Your task to perform on an android device: add a contact Image 0: 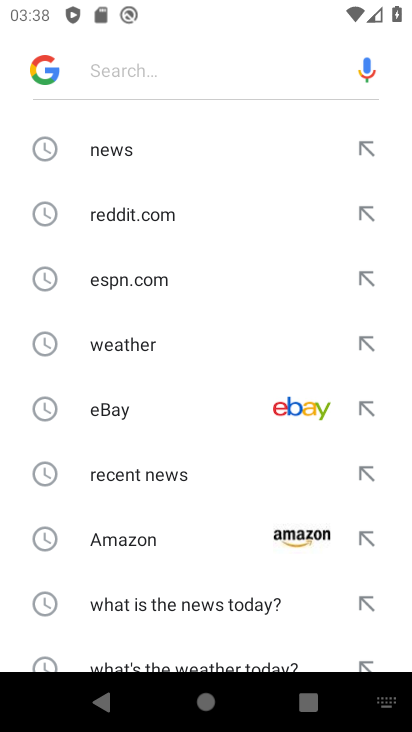
Step 0: press back button
Your task to perform on an android device: add a contact Image 1: 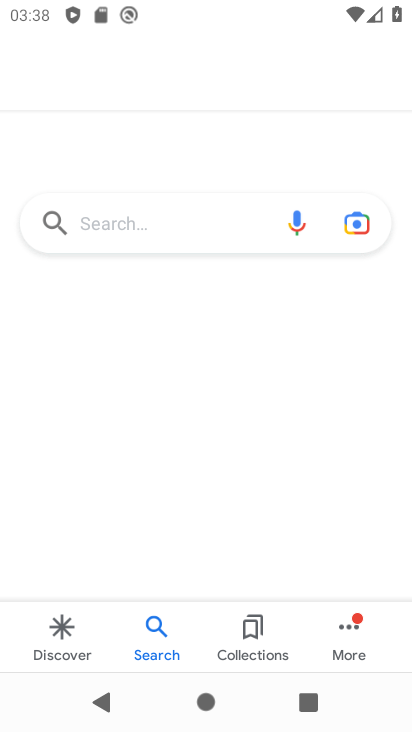
Step 1: press back button
Your task to perform on an android device: add a contact Image 2: 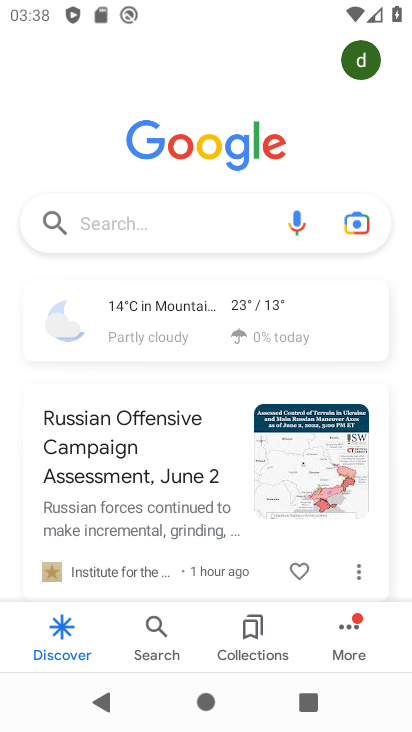
Step 2: press back button
Your task to perform on an android device: add a contact Image 3: 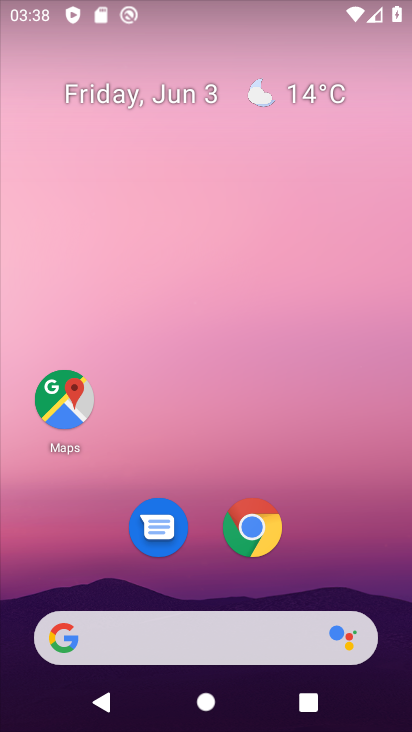
Step 3: drag from (337, 567) to (207, 9)
Your task to perform on an android device: add a contact Image 4: 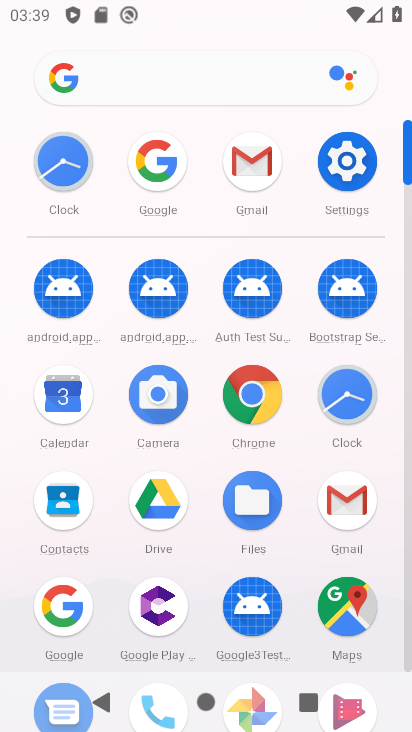
Step 4: click (62, 500)
Your task to perform on an android device: add a contact Image 5: 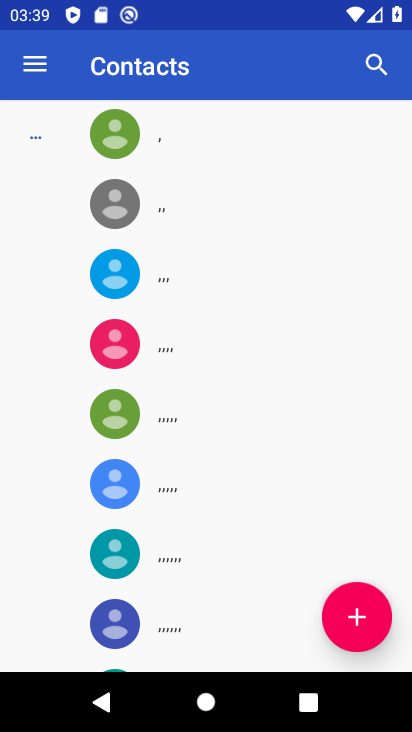
Step 5: click (357, 616)
Your task to perform on an android device: add a contact Image 6: 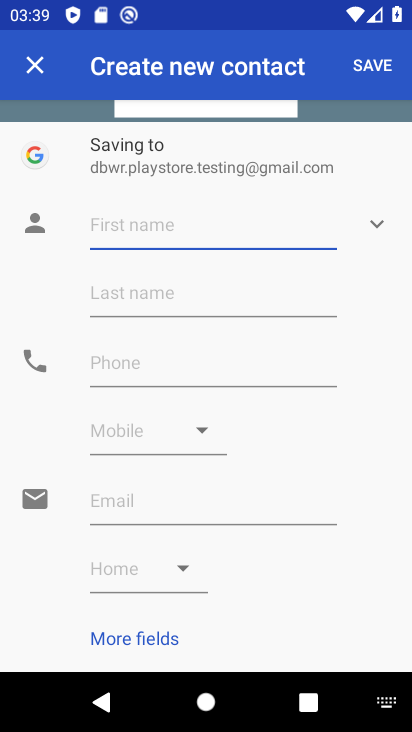
Step 6: type "Radheshyam"
Your task to perform on an android device: add a contact Image 7: 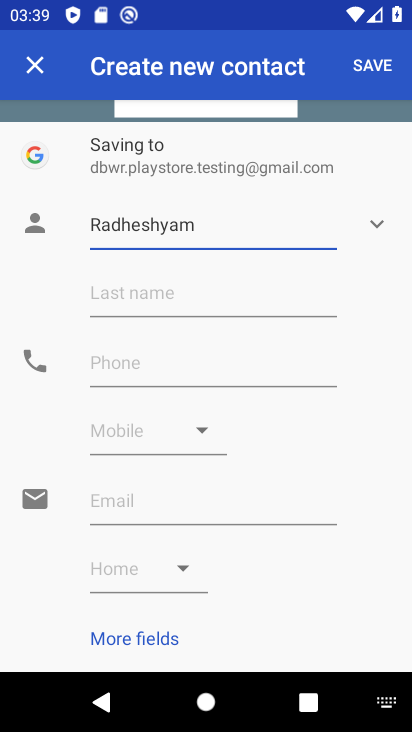
Step 7: click (236, 300)
Your task to perform on an android device: add a contact Image 8: 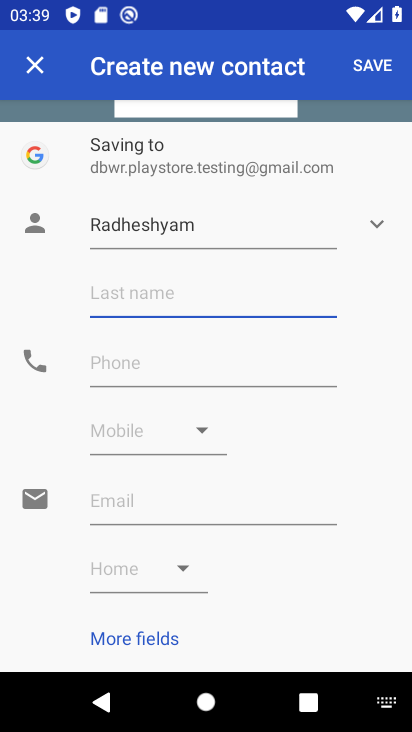
Step 8: type "Tiwary"
Your task to perform on an android device: add a contact Image 9: 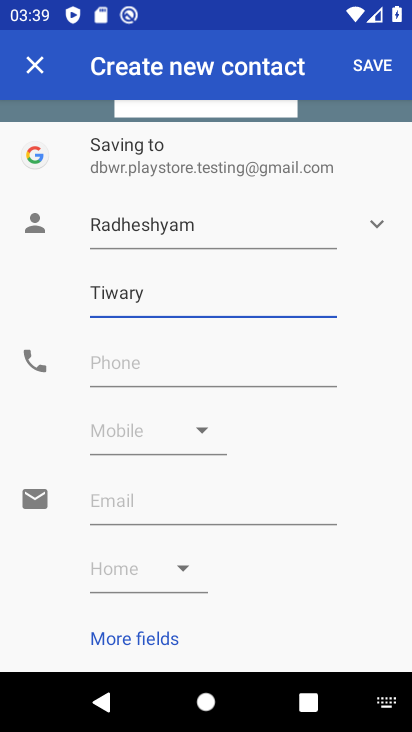
Step 9: click (179, 370)
Your task to perform on an android device: add a contact Image 10: 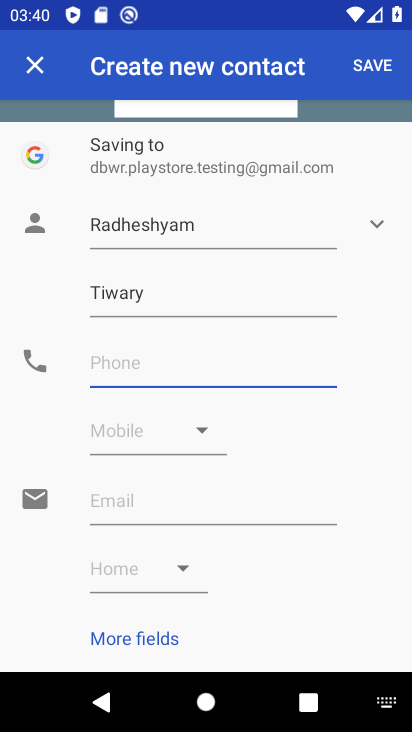
Step 10: type "09988776655"
Your task to perform on an android device: add a contact Image 11: 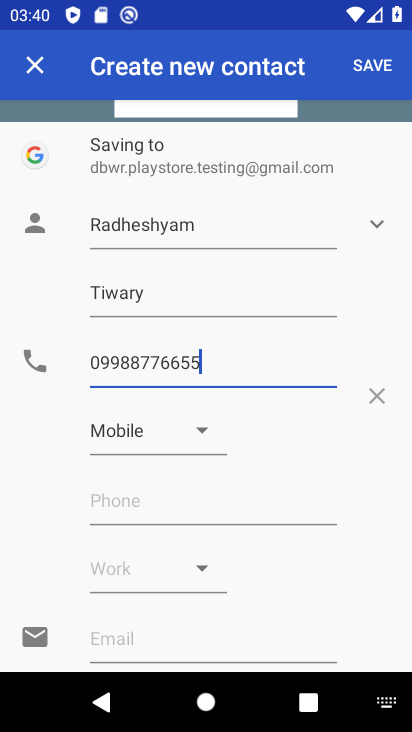
Step 11: type ""
Your task to perform on an android device: add a contact Image 12: 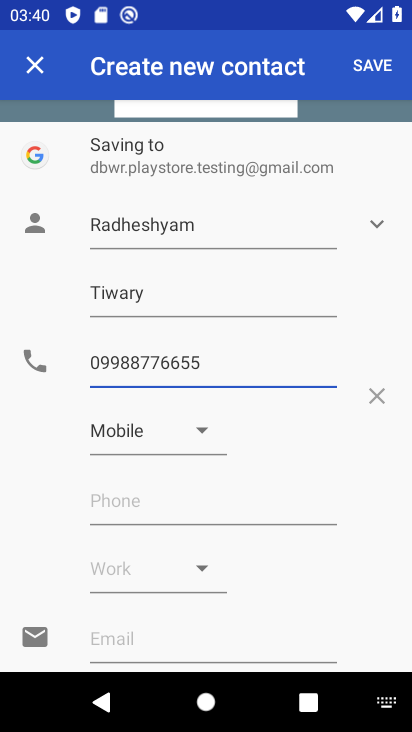
Step 12: click (374, 68)
Your task to perform on an android device: add a contact Image 13: 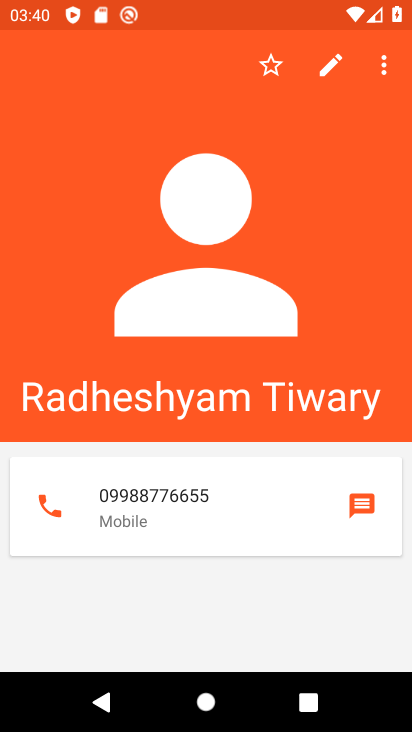
Step 13: task complete